Your task to perform on an android device: check storage Image 0: 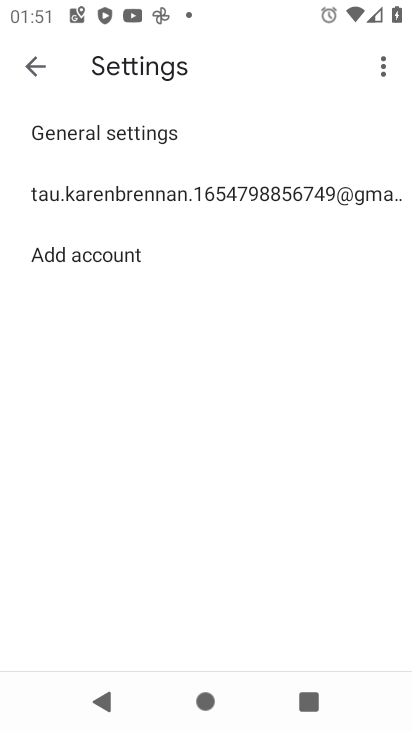
Step 0: press home button
Your task to perform on an android device: check storage Image 1: 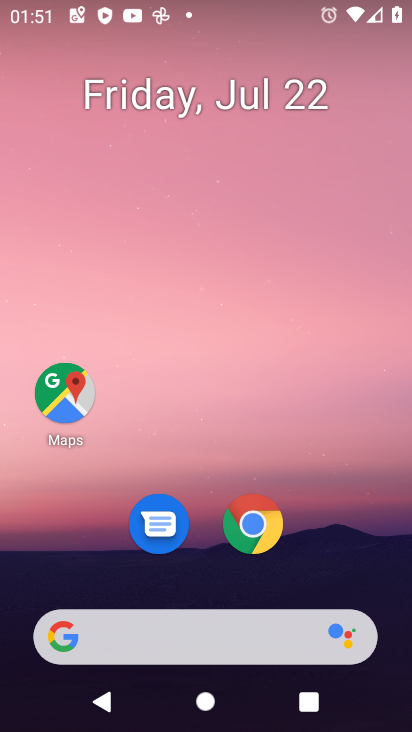
Step 1: drag from (222, 598) to (307, 128)
Your task to perform on an android device: check storage Image 2: 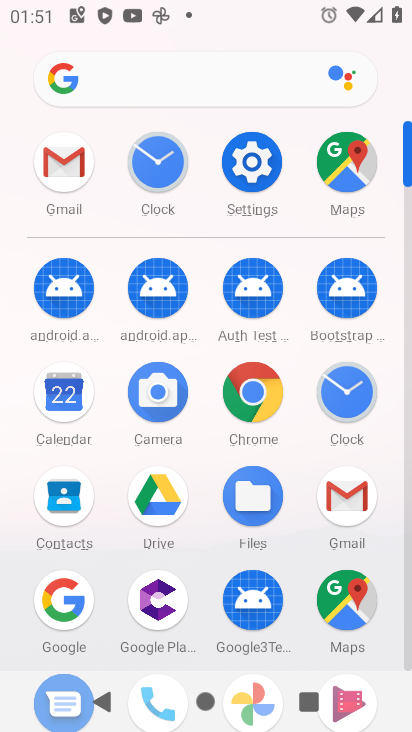
Step 2: click (242, 167)
Your task to perform on an android device: check storage Image 3: 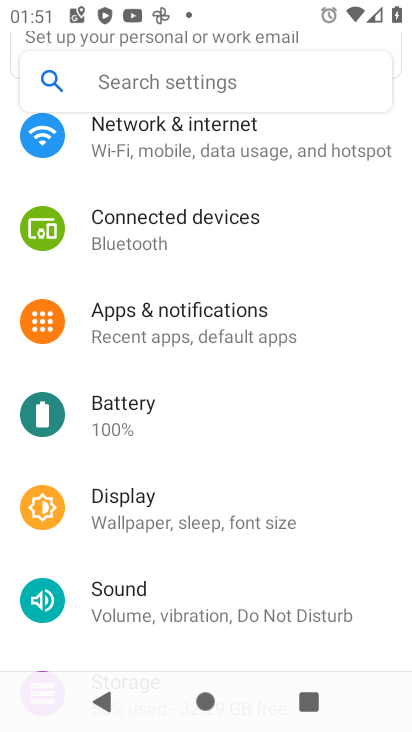
Step 3: drag from (203, 573) to (313, 195)
Your task to perform on an android device: check storage Image 4: 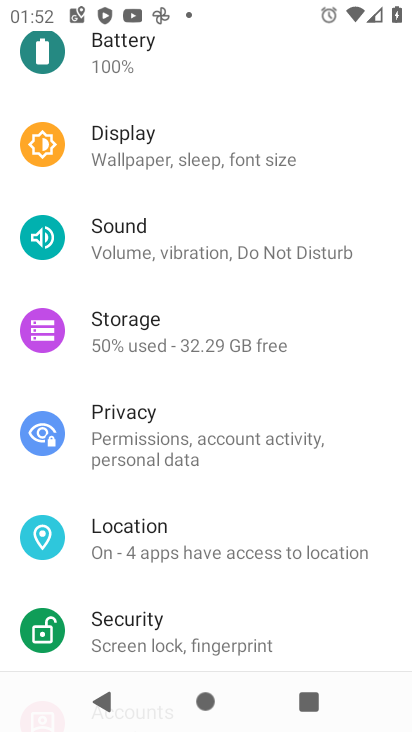
Step 4: click (151, 336)
Your task to perform on an android device: check storage Image 5: 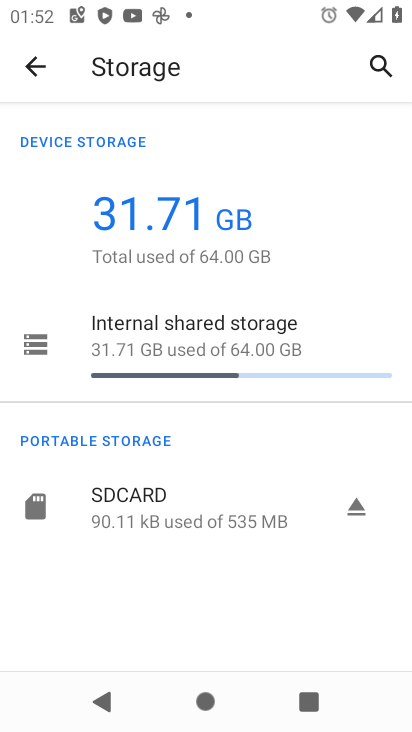
Step 5: task complete